Your task to perform on an android device: add a contact Image 0: 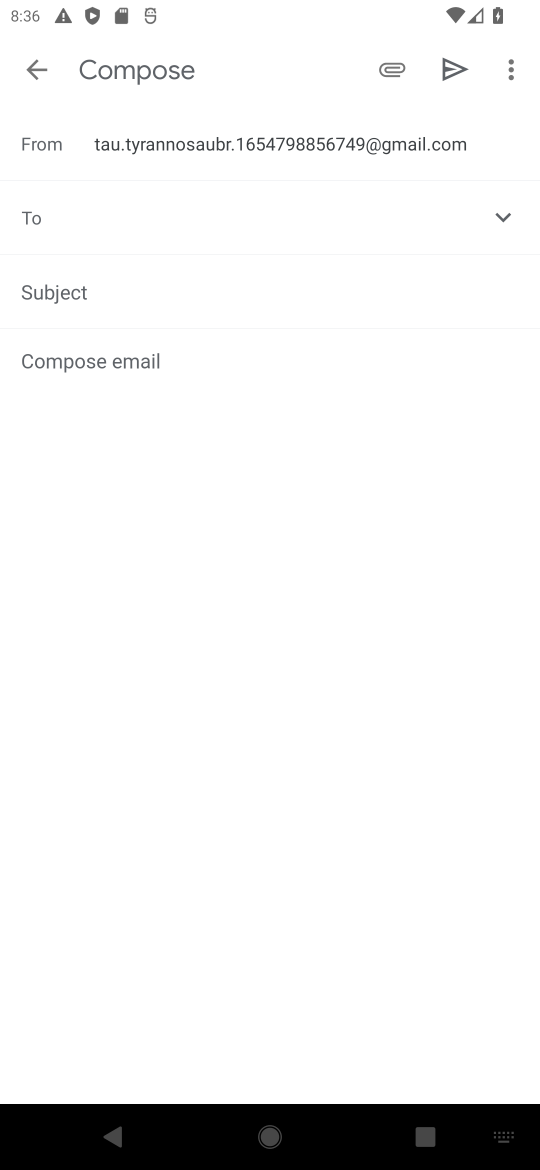
Step 0: press home button
Your task to perform on an android device: add a contact Image 1: 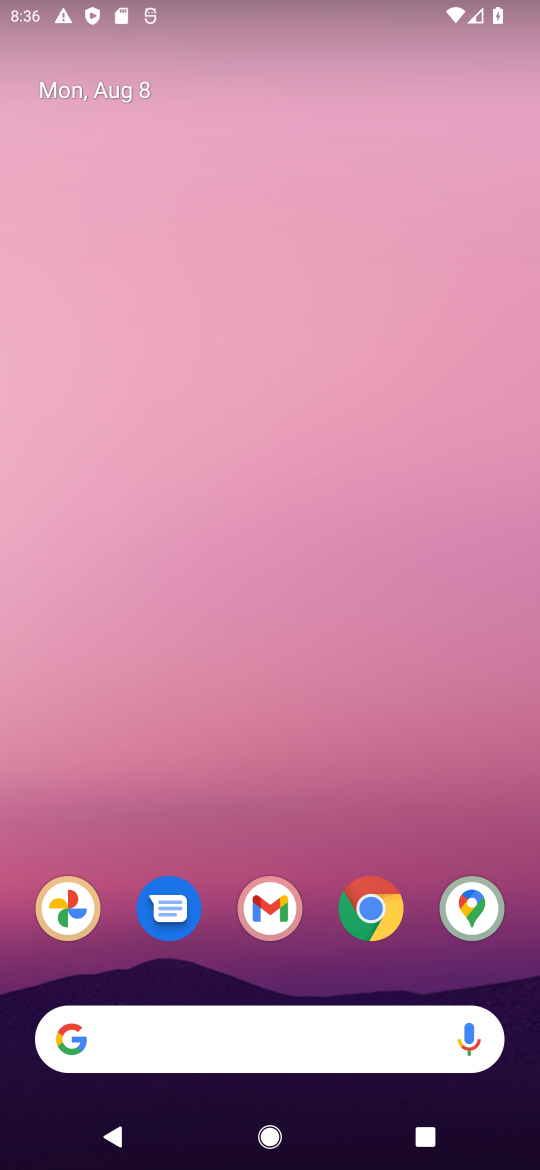
Step 1: drag from (222, 961) to (227, 257)
Your task to perform on an android device: add a contact Image 2: 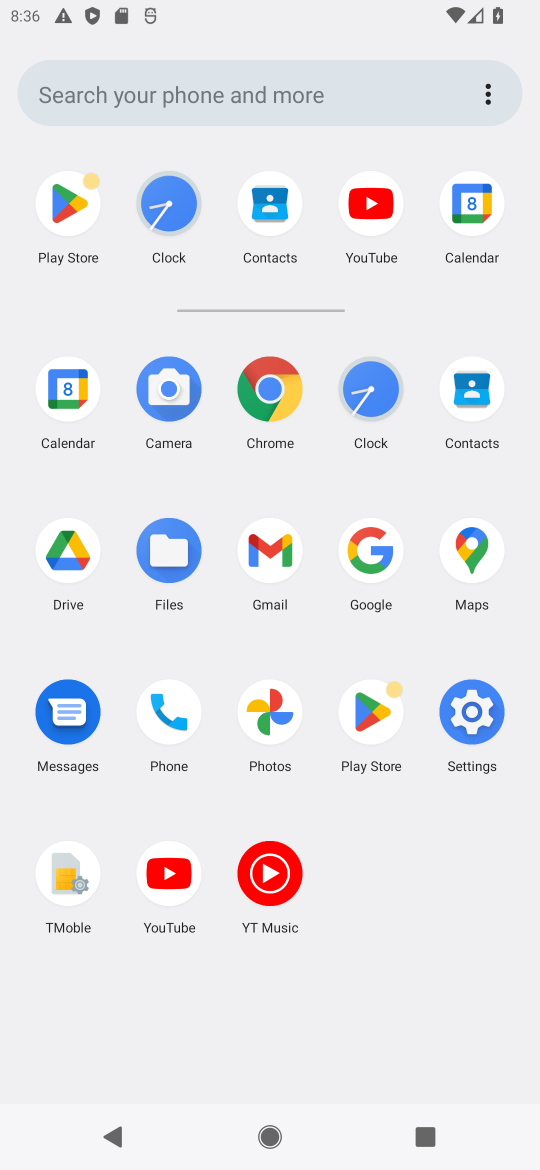
Step 2: click (461, 384)
Your task to perform on an android device: add a contact Image 3: 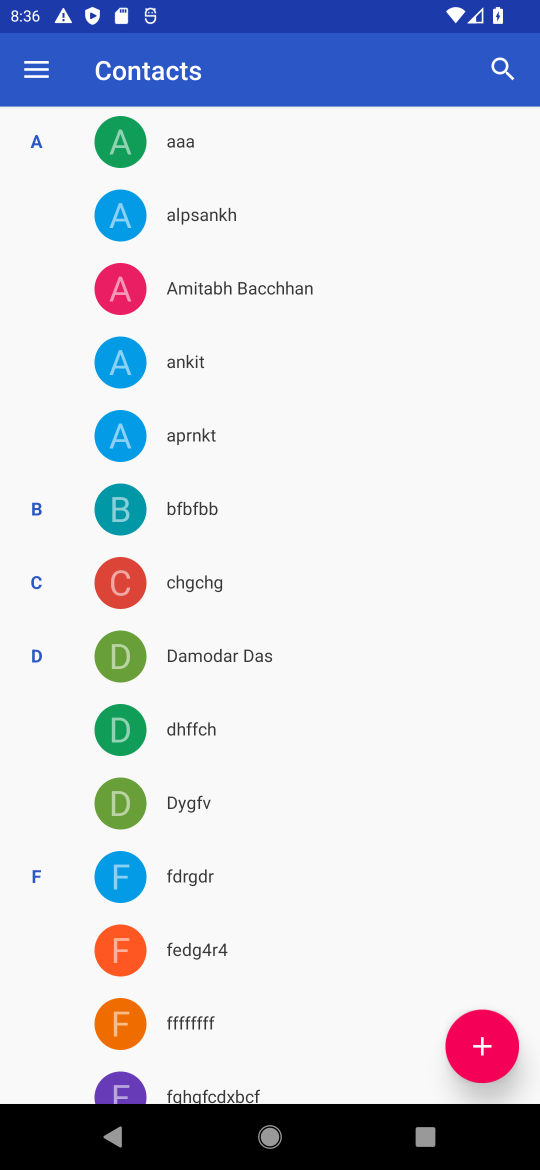
Step 3: click (465, 1039)
Your task to perform on an android device: add a contact Image 4: 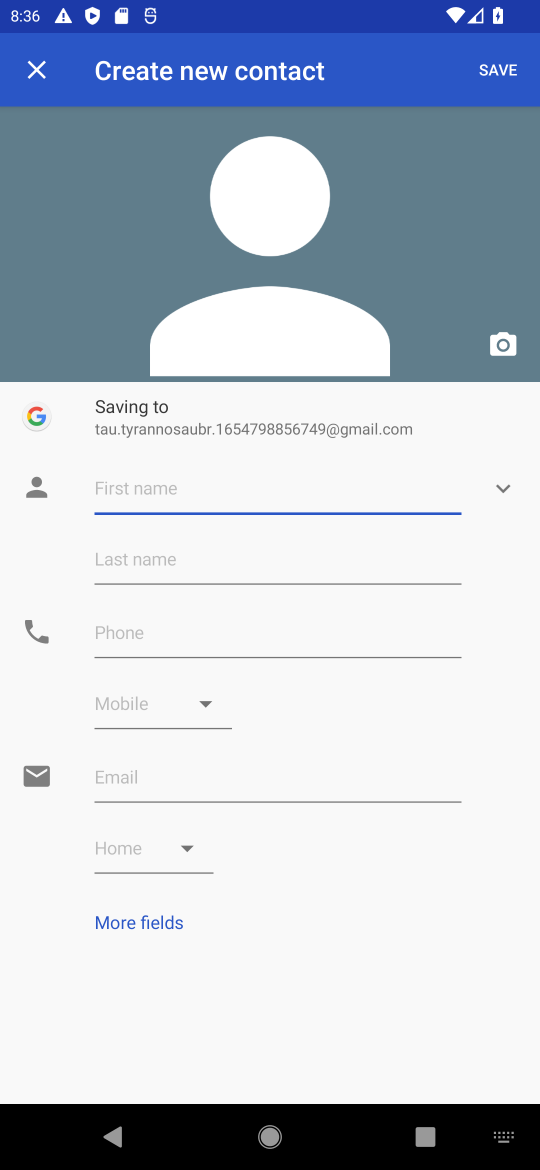
Step 4: type "poiuytgf"
Your task to perform on an android device: add a contact Image 5: 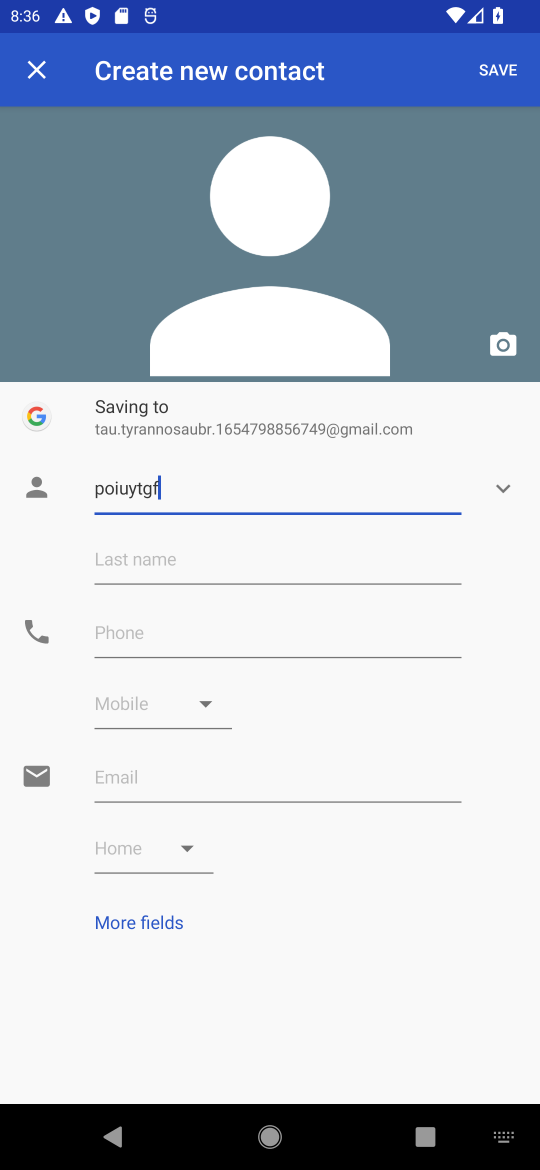
Step 5: click (227, 606)
Your task to perform on an android device: add a contact Image 6: 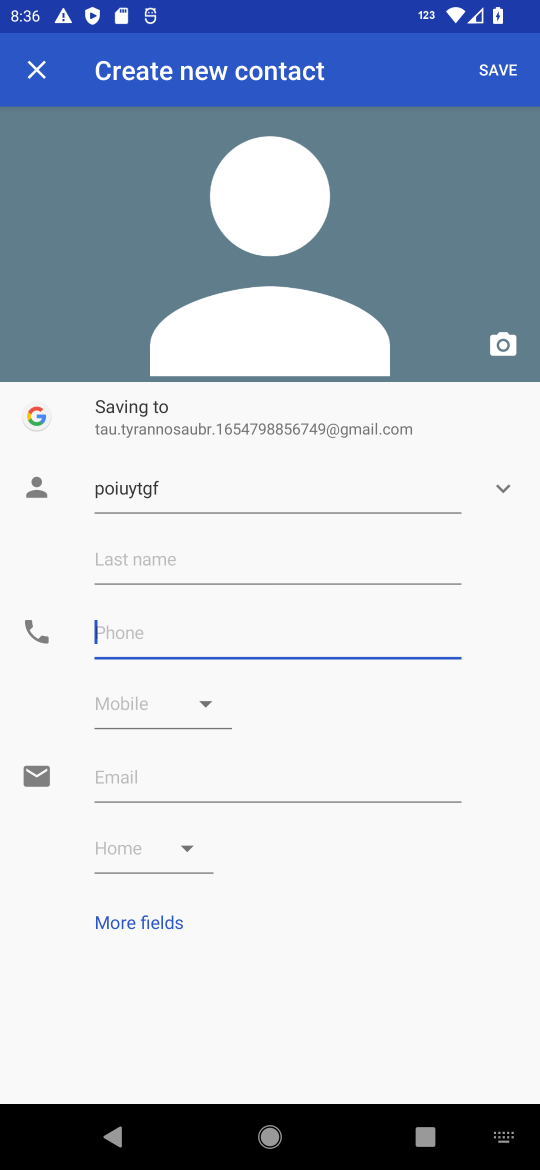
Step 6: type "8765434567890"
Your task to perform on an android device: add a contact Image 7: 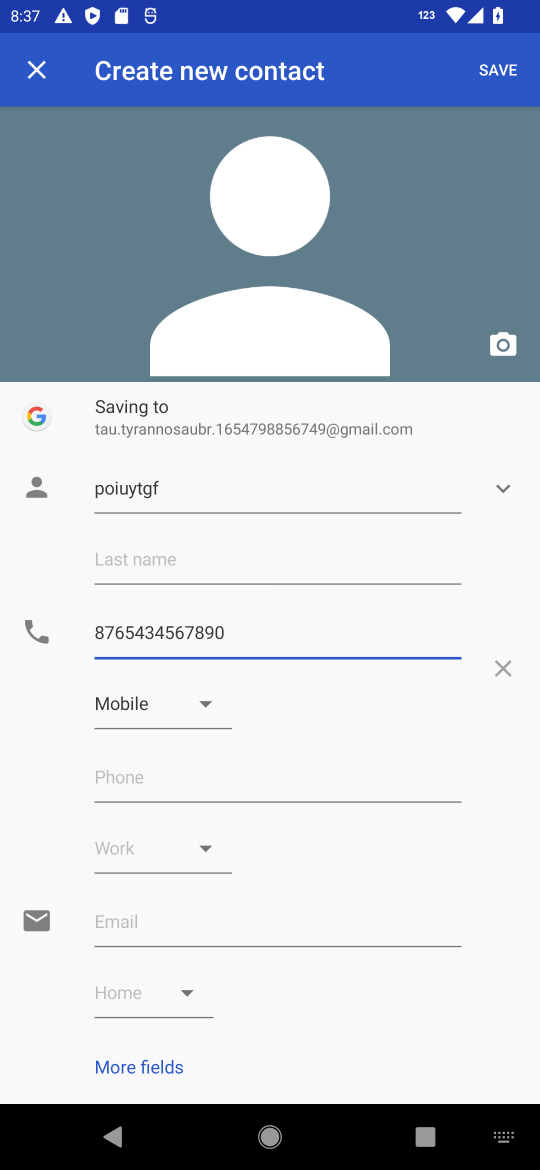
Step 7: click (507, 76)
Your task to perform on an android device: add a contact Image 8: 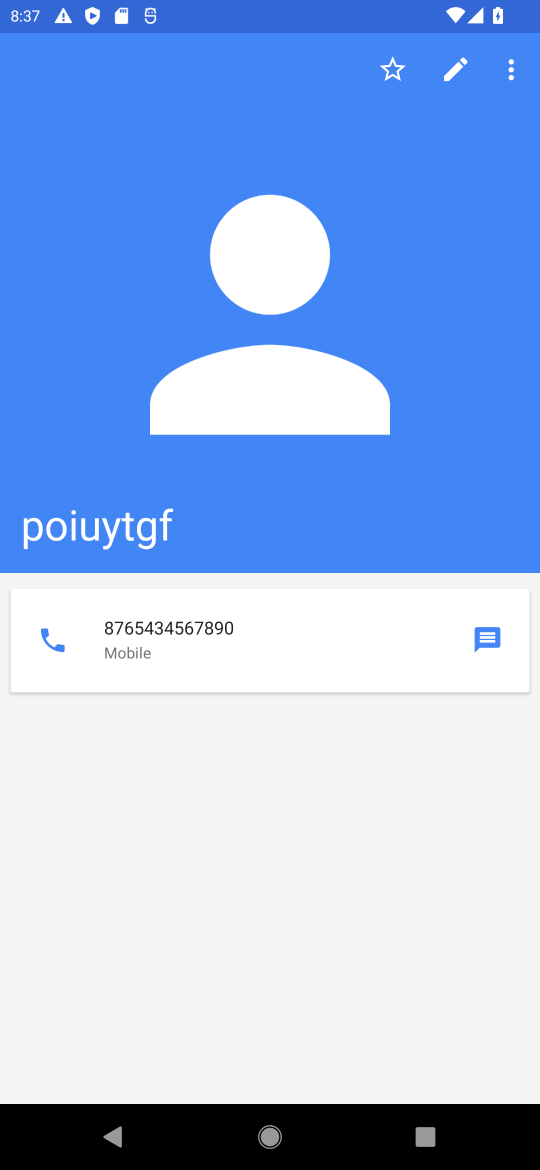
Step 8: task complete